Your task to perform on an android device: turn vacation reply on in the gmail app Image 0: 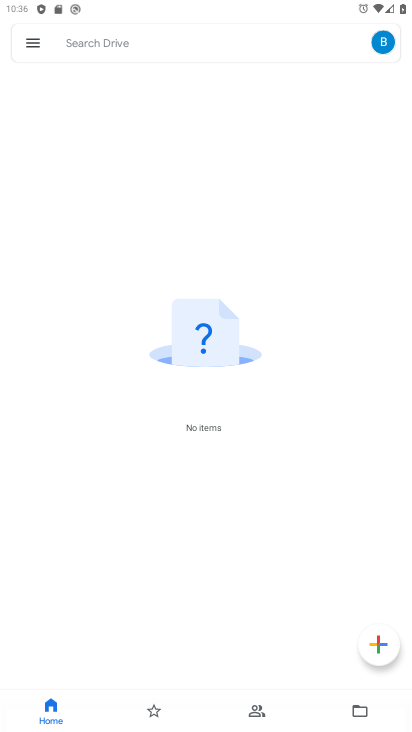
Step 0: press home button
Your task to perform on an android device: turn vacation reply on in the gmail app Image 1: 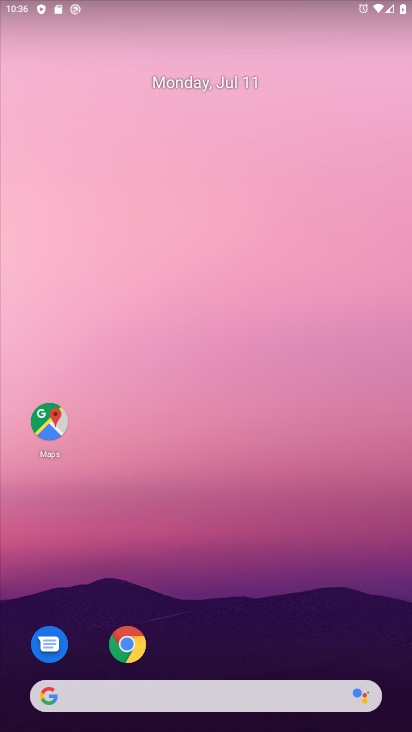
Step 1: drag from (298, 636) to (281, 4)
Your task to perform on an android device: turn vacation reply on in the gmail app Image 2: 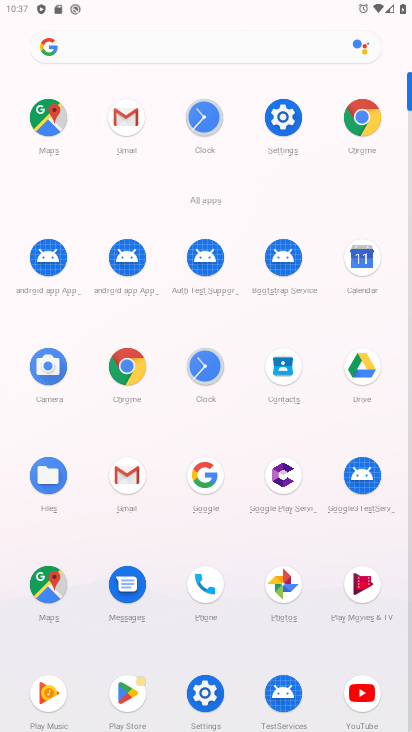
Step 2: click (135, 126)
Your task to perform on an android device: turn vacation reply on in the gmail app Image 3: 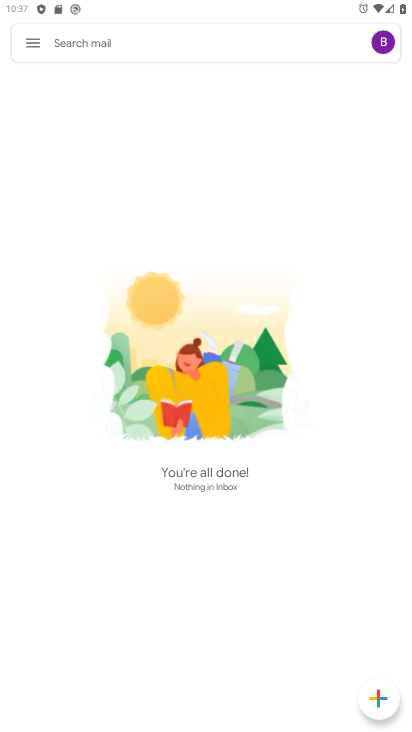
Step 3: click (43, 40)
Your task to perform on an android device: turn vacation reply on in the gmail app Image 4: 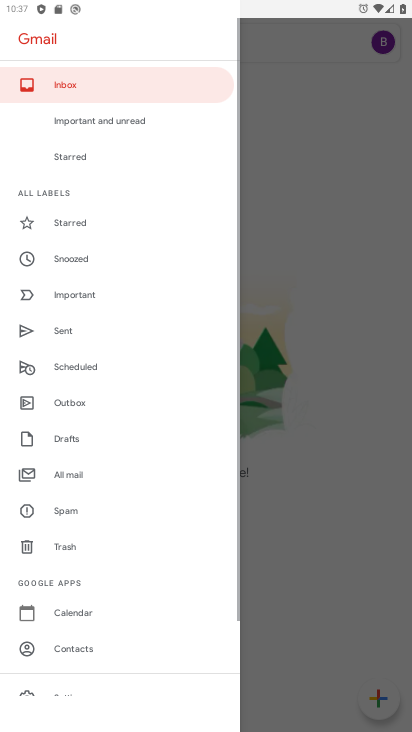
Step 4: drag from (80, 523) to (84, 299)
Your task to perform on an android device: turn vacation reply on in the gmail app Image 5: 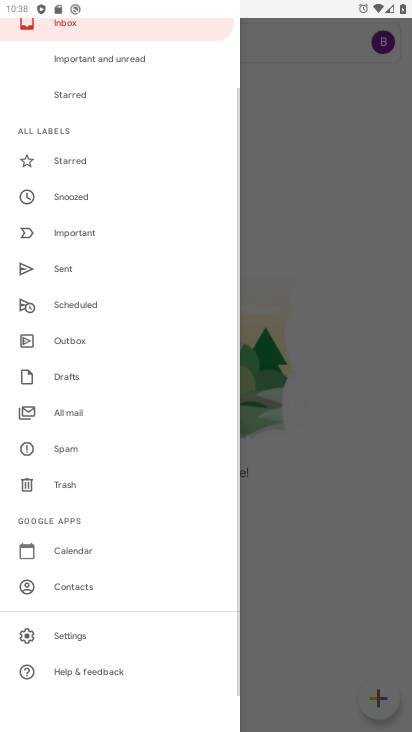
Step 5: click (59, 642)
Your task to perform on an android device: turn vacation reply on in the gmail app Image 6: 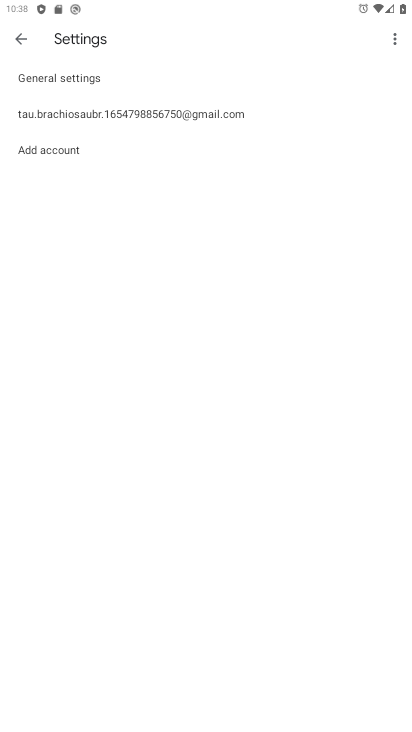
Step 6: click (164, 113)
Your task to perform on an android device: turn vacation reply on in the gmail app Image 7: 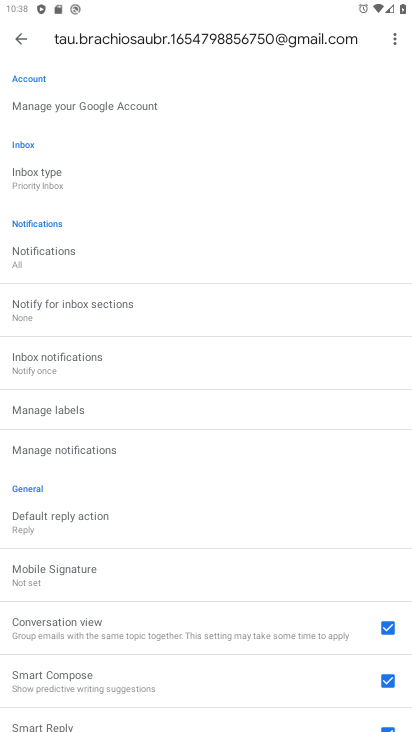
Step 7: drag from (70, 701) to (198, 152)
Your task to perform on an android device: turn vacation reply on in the gmail app Image 8: 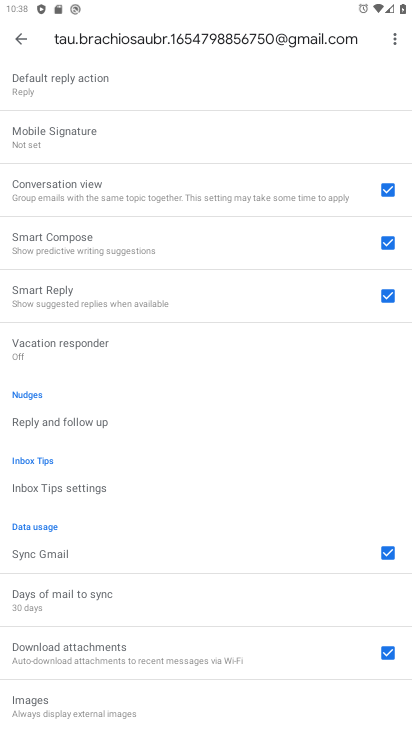
Step 8: click (53, 353)
Your task to perform on an android device: turn vacation reply on in the gmail app Image 9: 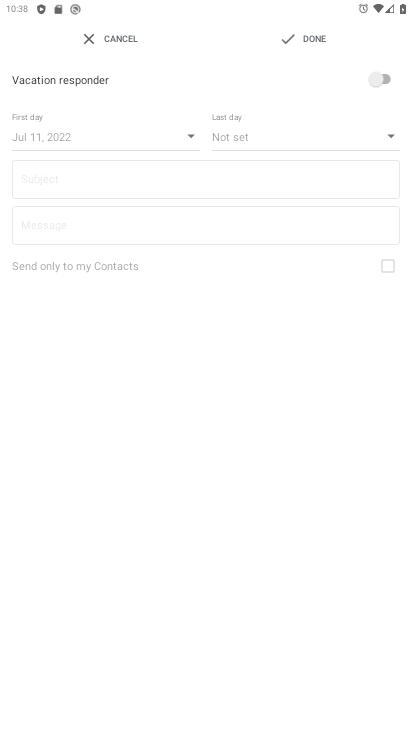
Step 9: click (192, 135)
Your task to perform on an android device: turn vacation reply on in the gmail app Image 10: 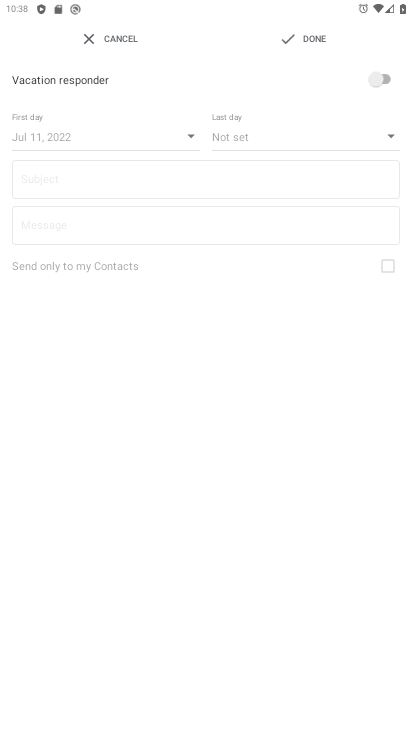
Step 10: click (194, 136)
Your task to perform on an android device: turn vacation reply on in the gmail app Image 11: 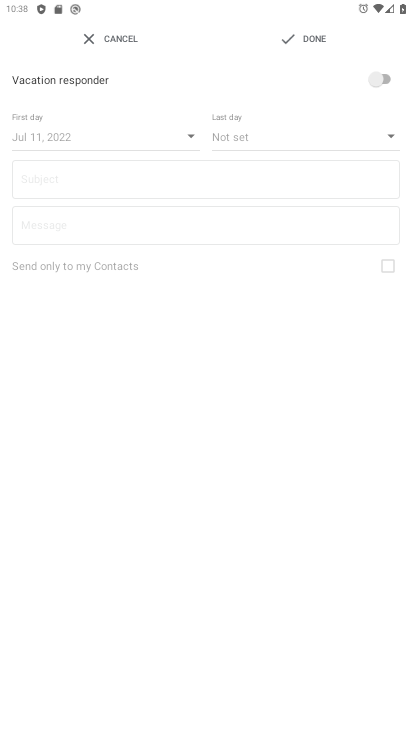
Step 11: click (194, 138)
Your task to perform on an android device: turn vacation reply on in the gmail app Image 12: 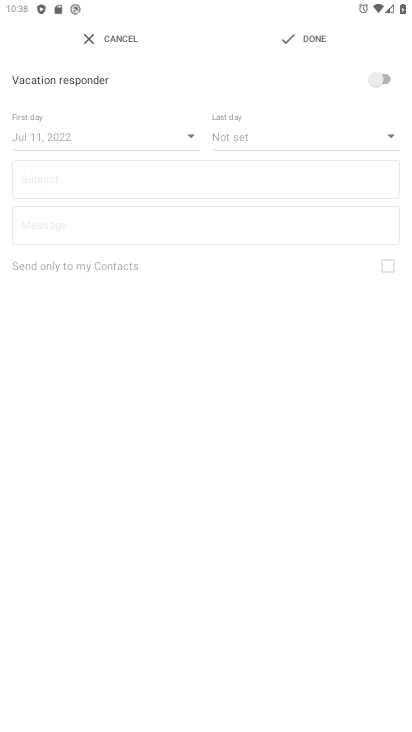
Step 12: click (190, 135)
Your task to perform on an android device: turn vacation reply on in the gmail app Image 13: 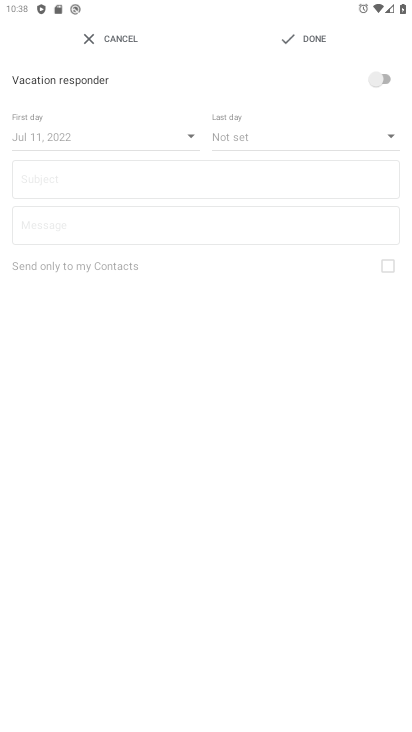
Step 13: click (46, 124)
Your task to perform on an android device: turn vacation reply on in the gmail app Image 14: 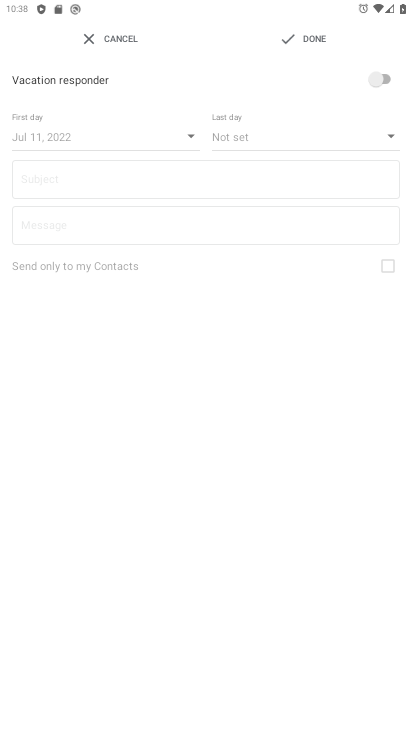
Step 14: click (376, 75)
Your task to perform on an android device: turn vacation reply on in the gmail app Image 15: 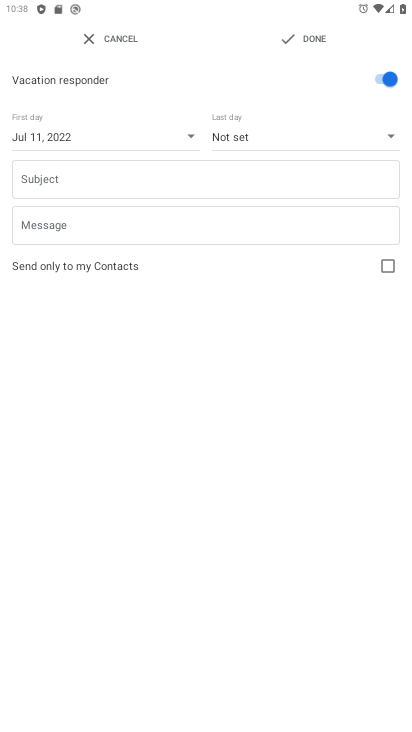
Step 15: click (190, 131)
Your task to perform on an android device: turn vacation reply on in the gmail app Image 16: 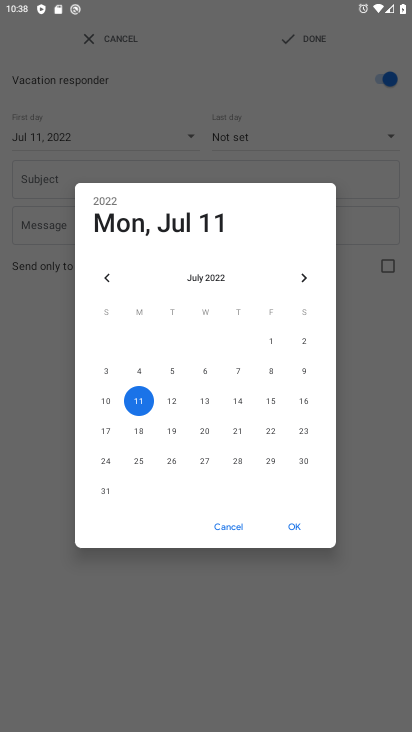
Step 16: click (170, 407)
Your task to perform on an android device: turn vacation reply on in the gmail app Image 17: 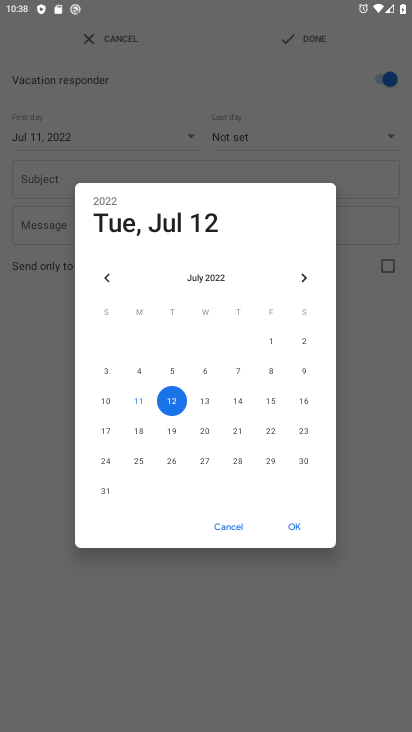
Step 17: click (296, 523)
Your task to perform on an android device: turn vacation reply on in the gmail app Image 18: 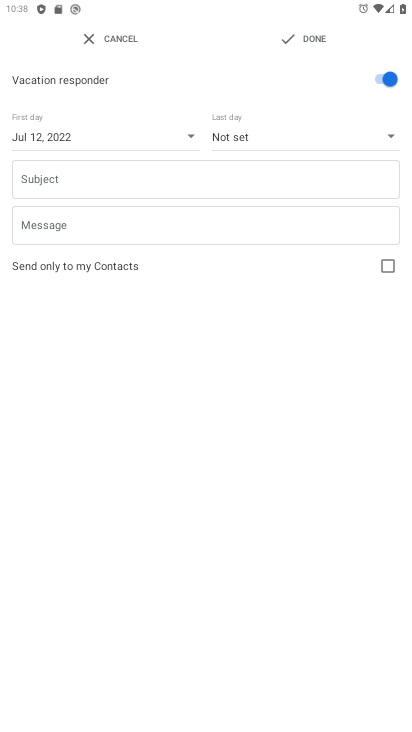
Step 18: click (312, 27)
Your task to perform on an android device: turn vacation reply on in the gmail app Image 19: 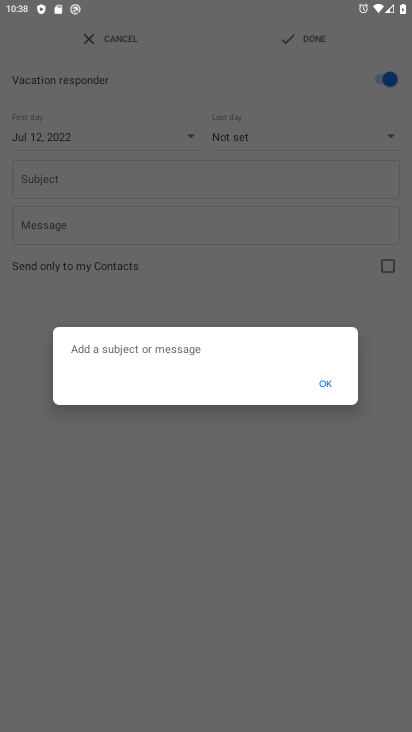
Step 19: click (318, 374)
Your task to perform on an android device: turn vacation reply on in the gmail app Image 20: 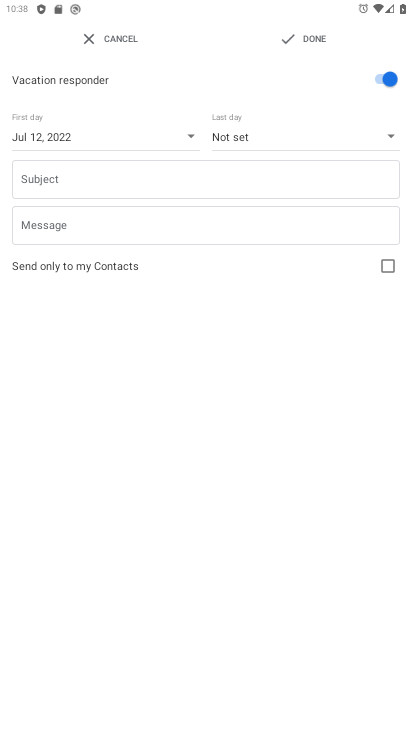
Step 20: click (161, 166)
Your task to perform on an android device: turn vacation reply on in the gmail app Image 21: 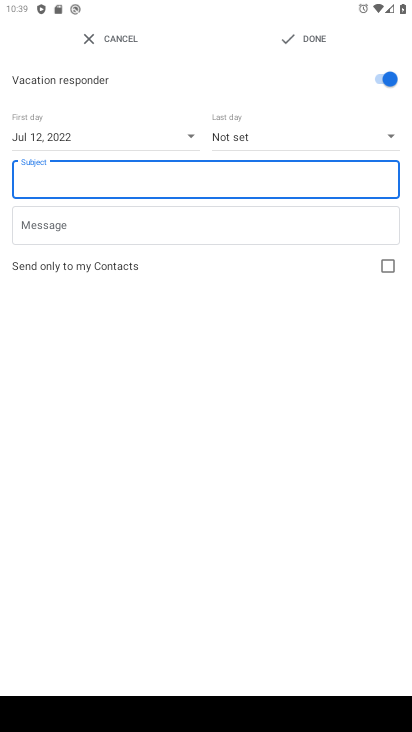
Step 21: type "movie"
Your task to perform on an android device: turn vacation reply on in the gmail app Image 22: 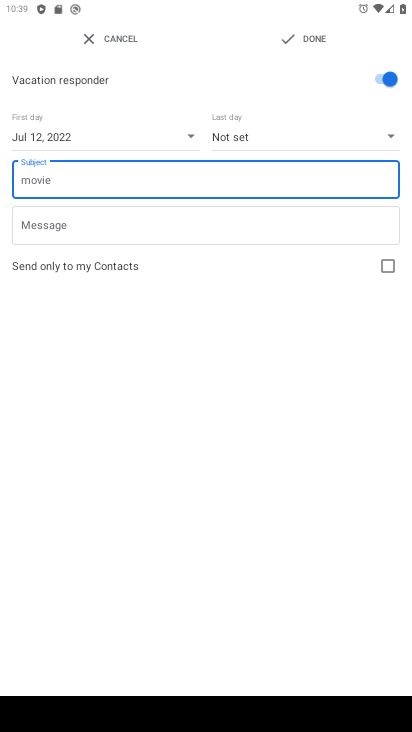
Step 22: click (71, 225)
Your task to perform on an android device: turn vacation reply on in the gmail app Image 23: 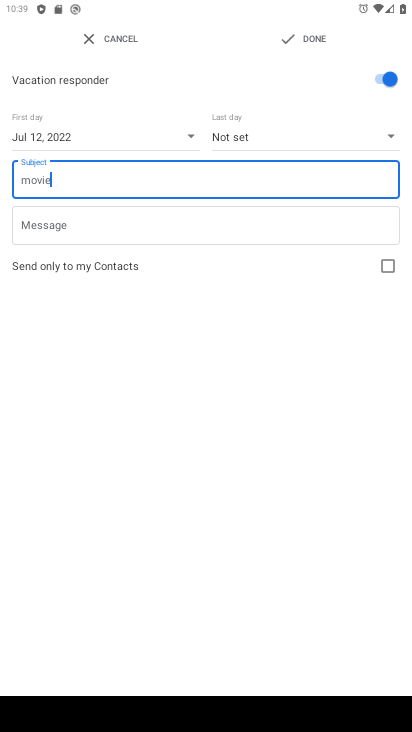
Step 23: click (71, 225)
Your task to perform on an android device: turn vacation reply on in the gmail app Image 24: 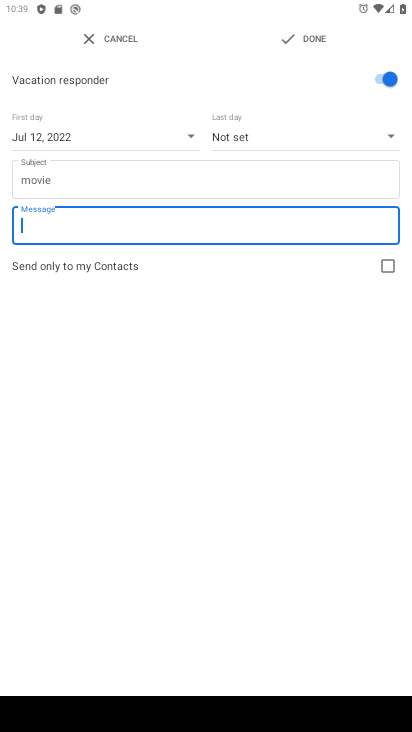
Step 24: click (71, 225)
Your task to perform on an android device: turn vacation reply on in the gmail app Image 25: 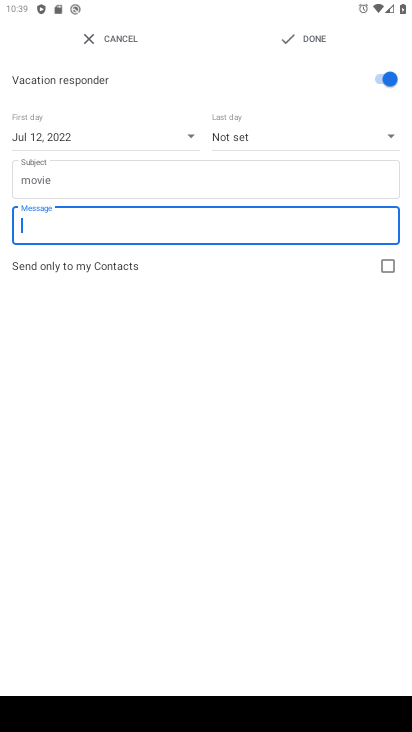
Step 25: click (71, 225)
Your task to perform on an android device: turn vacation reply on in the gmail app Image 26: 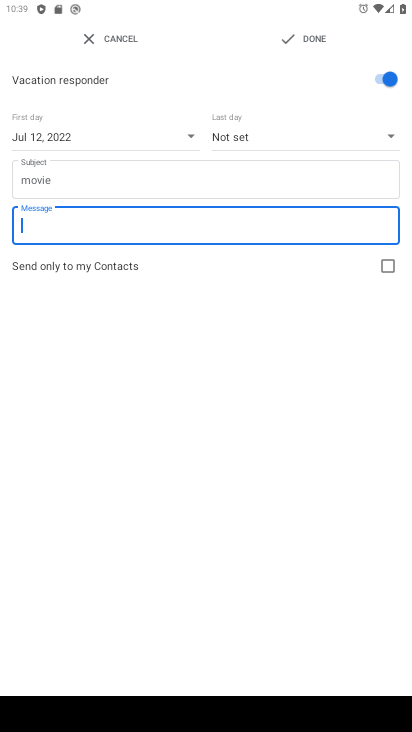
Step 26: click (71, 225)
Your task to perform on an android device: turn vacation reply on in the gmail app Image 27: 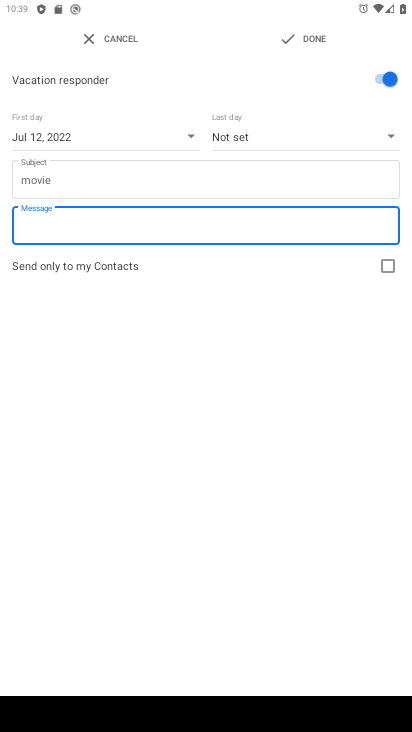
Step 27: click (71, 225)
Your task to perform on an android device: turn vacation reply on in the gmail app Image 28: 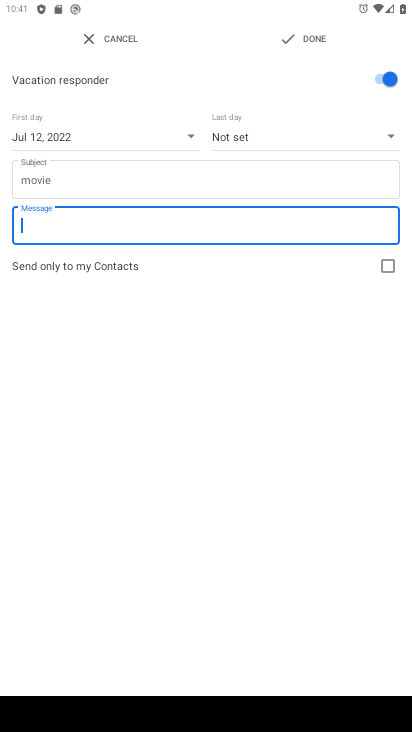
Step 28: type "will you go to see a movie with me"
Your task to perform on an android device: turn vacation reply on in the gmail app Image 29: 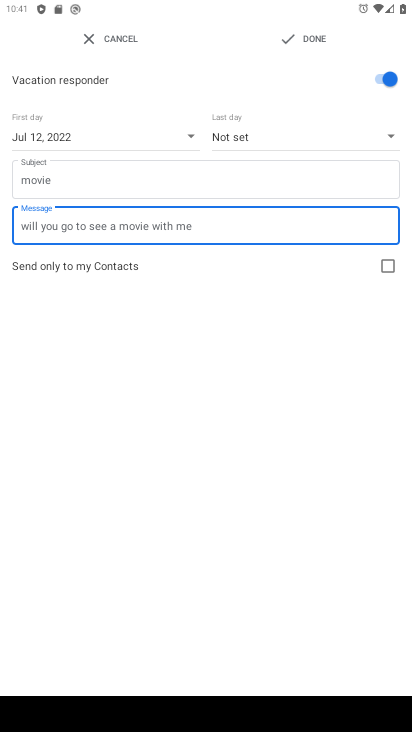
Step 29: click (294, 35)
Your task to perform on an android device: turn vacation reply on in the gmail app Image 30: 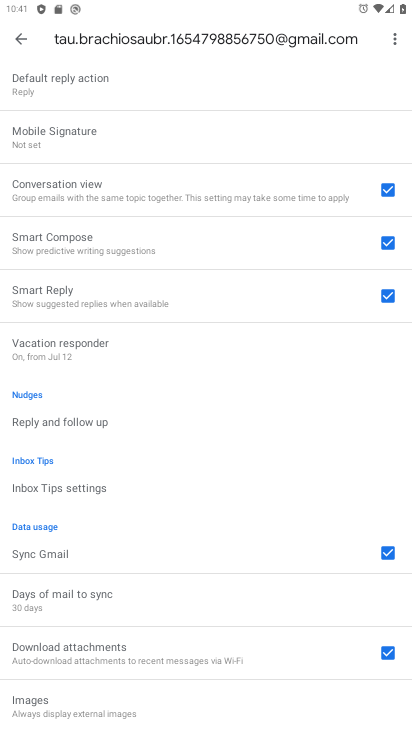
Step 30: task complete